Your task to perform on an android device: set the stopwatch Image 0: 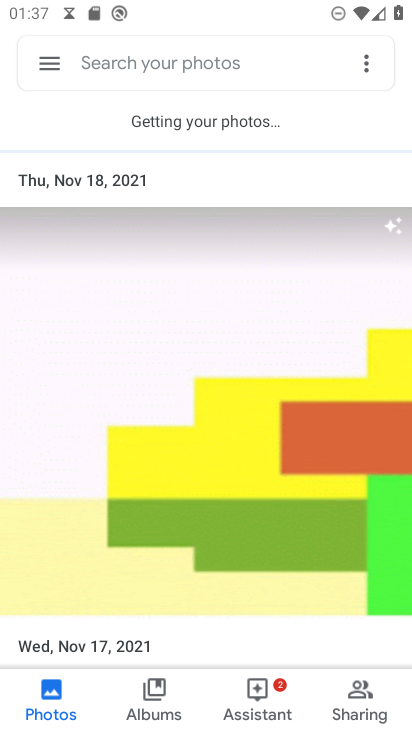
Step 0: press home button
Your task to perform on an android device: set the stopwatch Image 1: 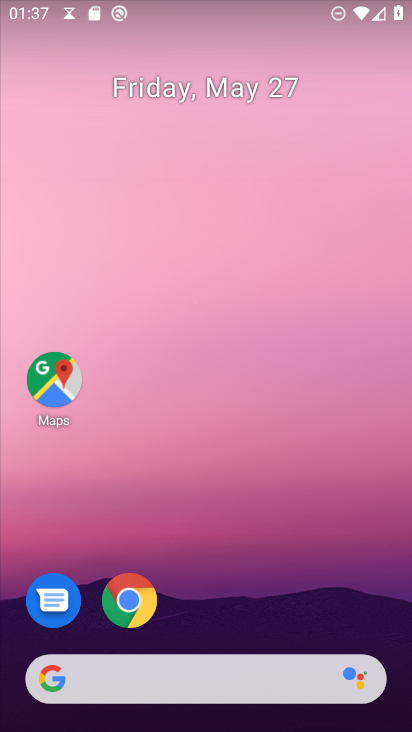
Step 1: drag from (257, 547) to (335, 190)
Your task to perform on an android device: set the stopwatch Image 2: 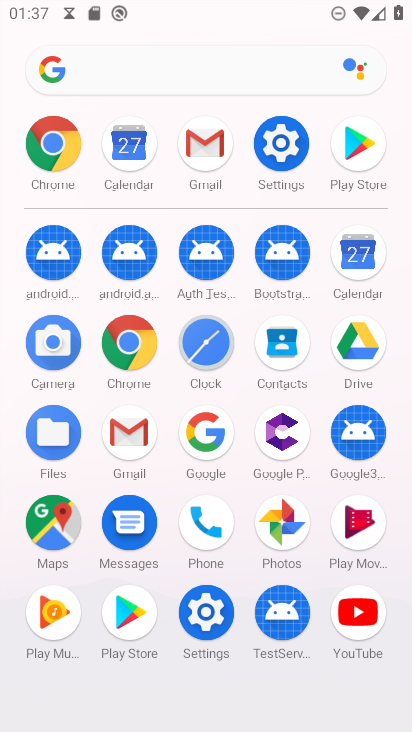
Step 2: click (216, 341)
Your task to perform on an android device: set the stopwatch Image 3: 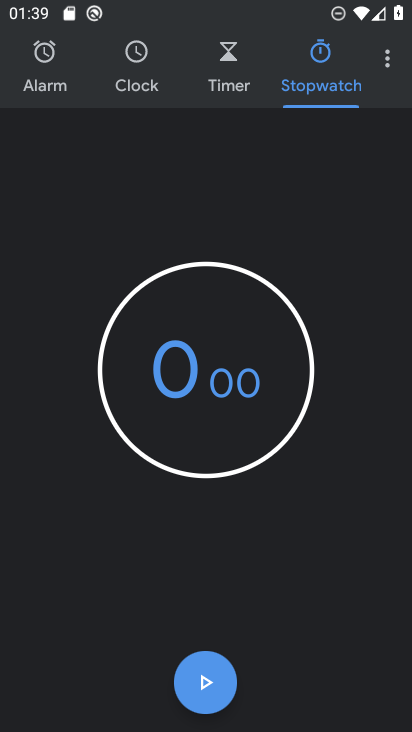
Step 3: click (179, 384)
Your task to perform on an android device: set the stopwatch Image 4: 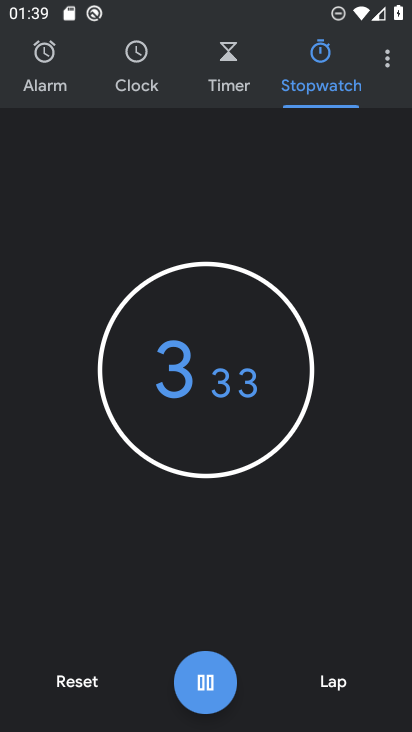
Step 4: task complete